Your task to perform on an android device: Search for a new skincare product Image 0: 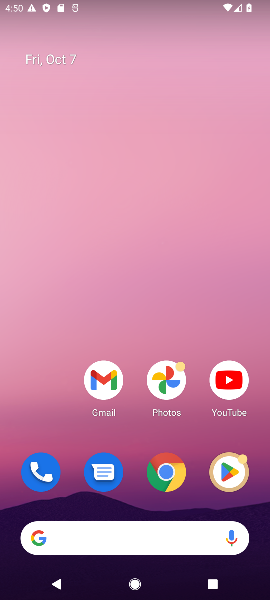
Step 0: click (173, 468)
Your task to perform on an android device: Search for a new skincare product Image 1: 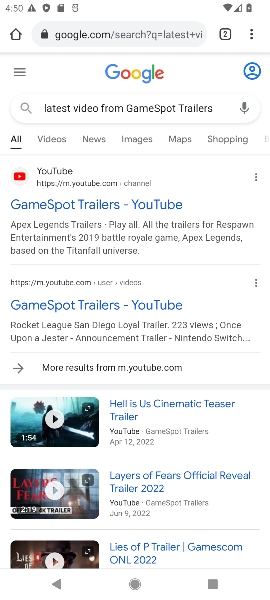
Step 1: click (88, 36)
Your task to perform on an android device: Search for a new skincare product Image 2: 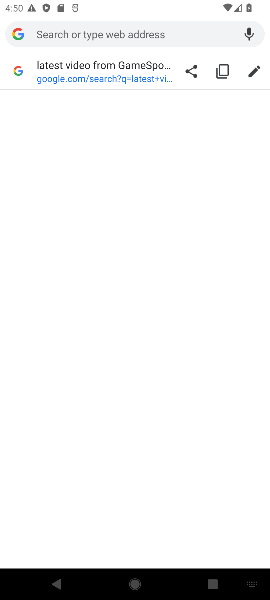
Step 2: type "new skincare product"
Your task to perform on an android device: Search for a new skincare product Image 3: 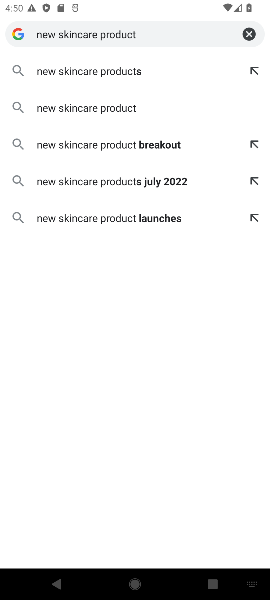
Step 3: click (96, 73)
Your task to perform on an android device: Search for a new skincare product Image 4: 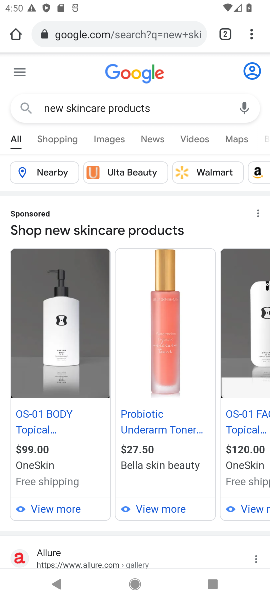
Step 4: task complete